Your task to perform on an android device: open sync settings in chrome Image 0: 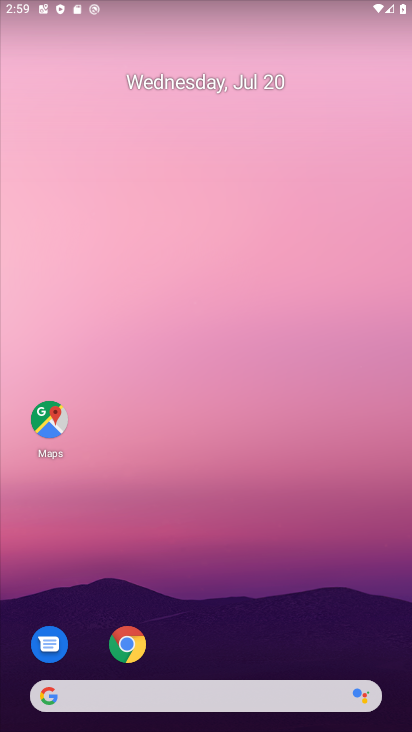
Step 0: click (141, 637)
Your task to perform on an android device: open sync settings in chrome Image 1: 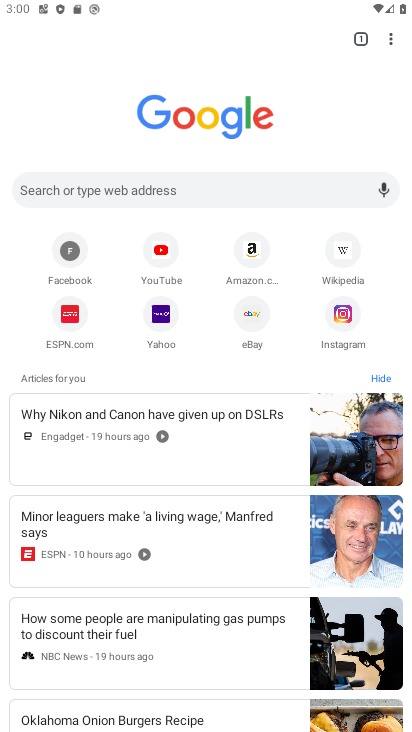
Step 1: click (394, 31)
Your task to perform on an android device: open sync settings in chrome Image 2: 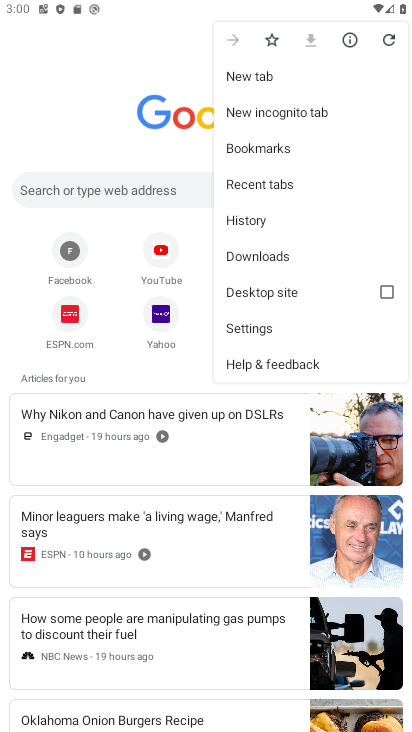
Step 2: click (267, 337)
Your task to perform on an android device: open sync settings in chrome Image 3: 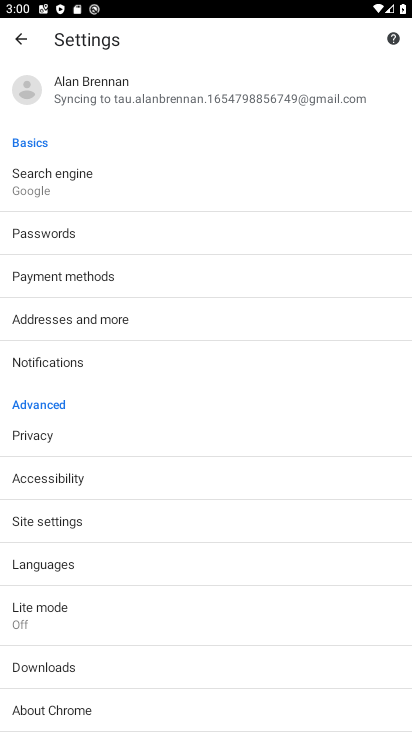
Step 3: click (133, 118)
Your task to perform on an android device: open sync settings in chrome Image 4: 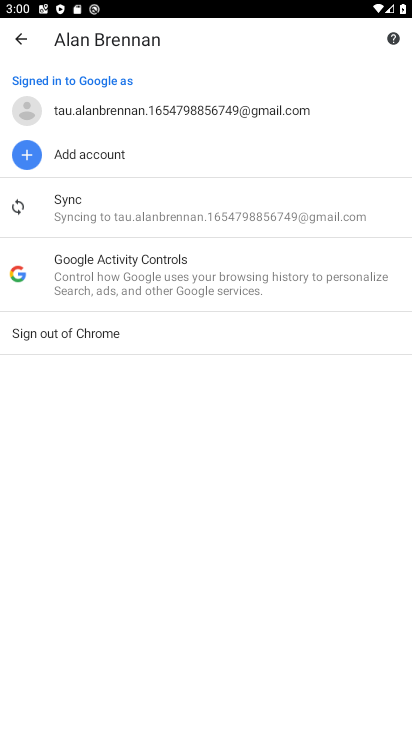
Step 4: task complete